Your task to perform on an android device: toggle data saver in the chrome app Image 0: 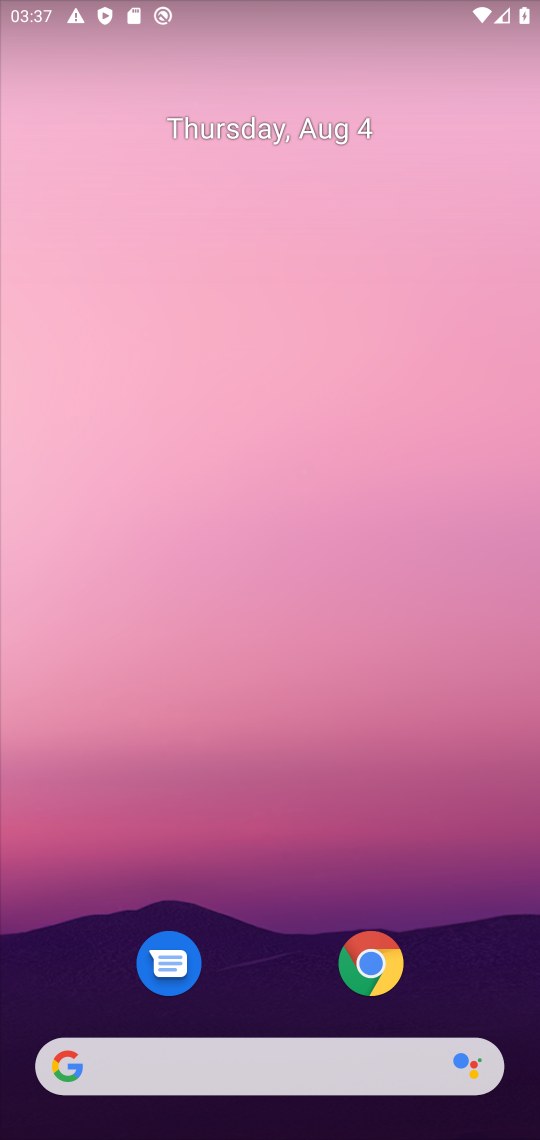
Step 0: click (379, 967)
Your task to perform on an android device: toggle data saver in the chrome app Image 1: 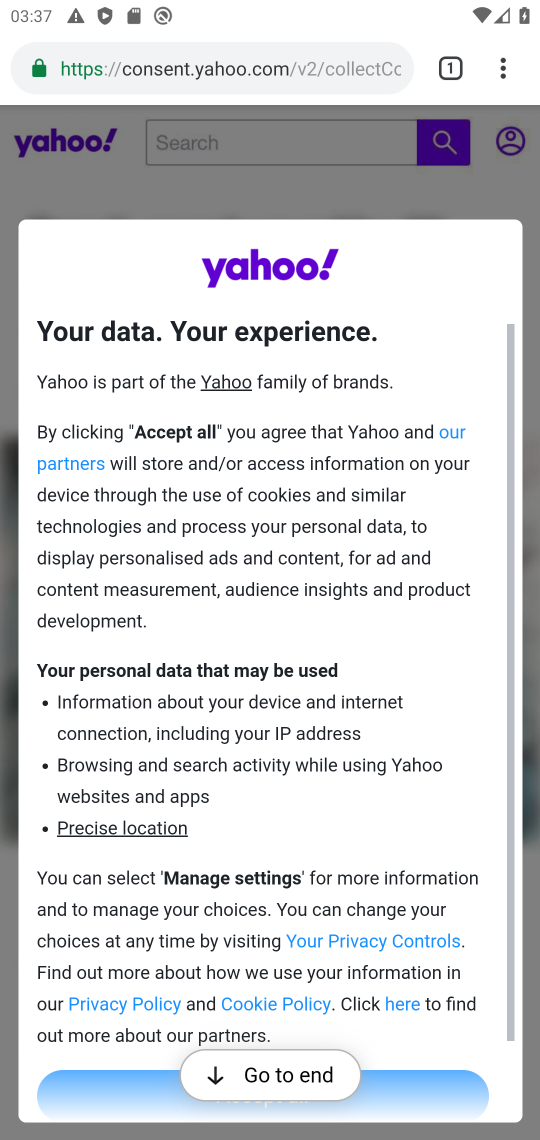
Step 1: drag from (506, 65) to (272, 821)
Your task to perform on an android device: toggle data saver in the chrome app Image 2: 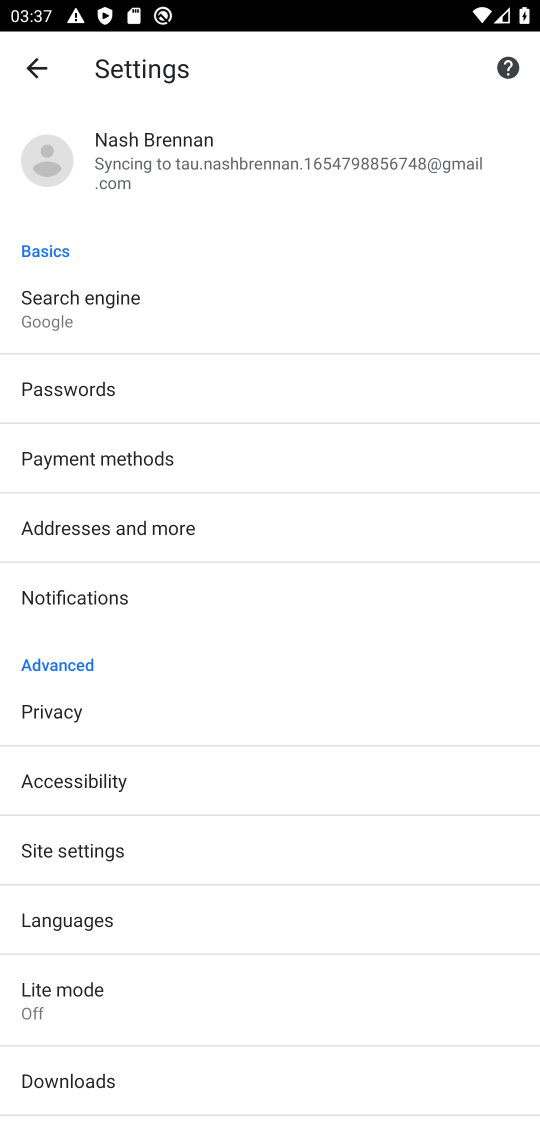
Step 2: click (75, 992)
Your task to perform on an android device: toggle data saver in the chrome app Image 3: 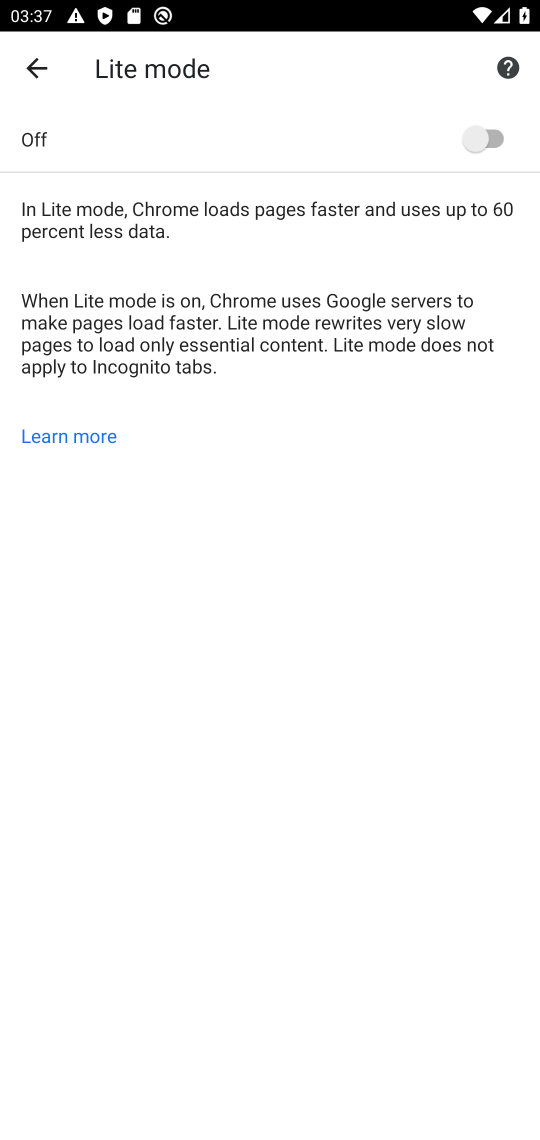
Step 3: click (472, 137)
Your task to perform on an android device: toggle data saver in the chrome app Image 4: 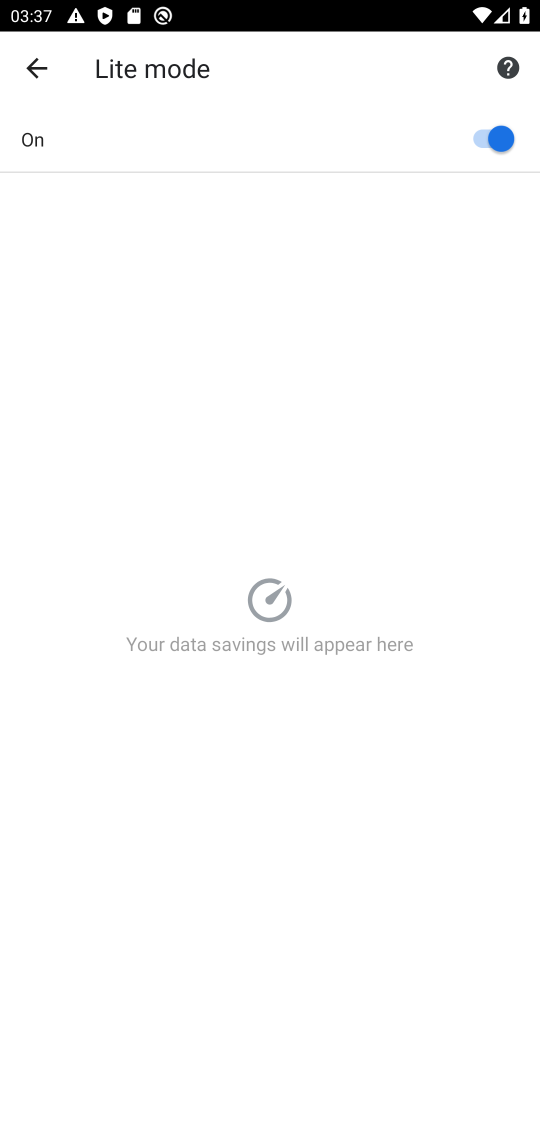
Step 4: task complete